Your task to perform on an android device: Open Yahoo.com Image 0: 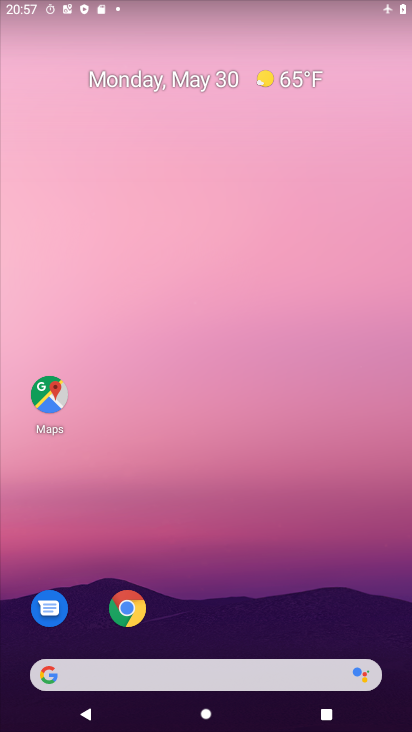
Step 0: click (140, 608)
Your task to perform on an android device: Open Yahoo.com Image 1: 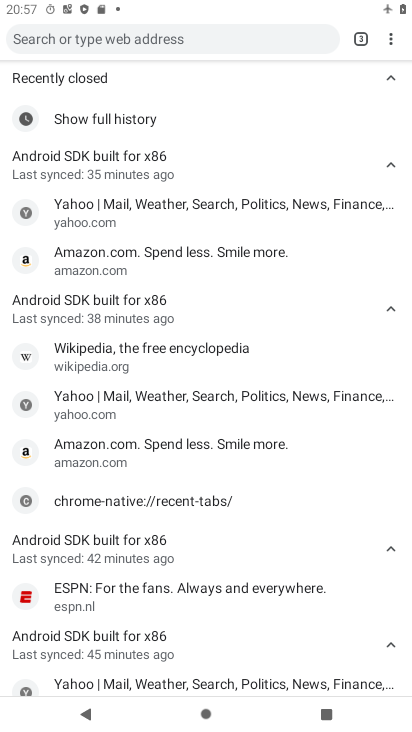
Step 1: click (363, 26)
Your task to perform on an android device: Open Yahoo.com Image 2: 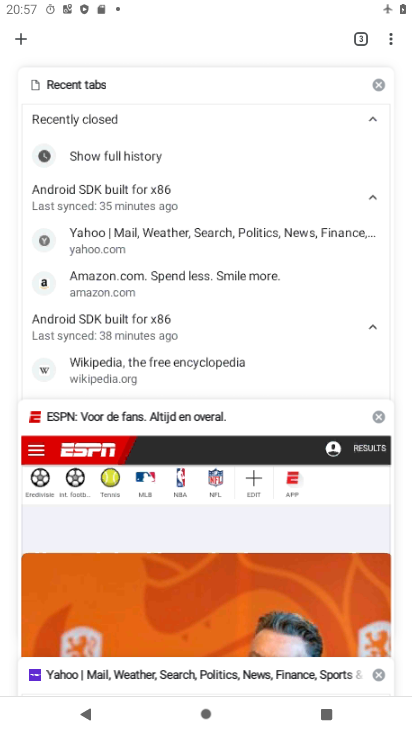
Step 2: click (23, 36)
Your task to perform on an android device: Open Yahoo.com Image 3: 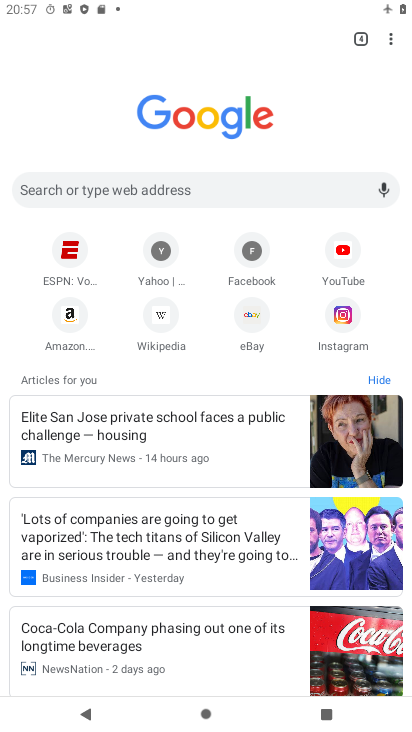
Step 3: click (207, 177)
Your task to perform on an android device: Open Yahoo.com Image 4: 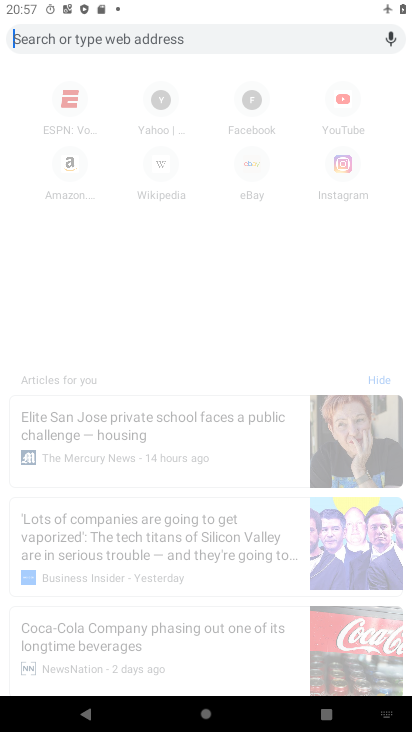
Step 4: type "Yahoo.com"
Your task to perform on an android device: Open Yahoo.com Image 5: 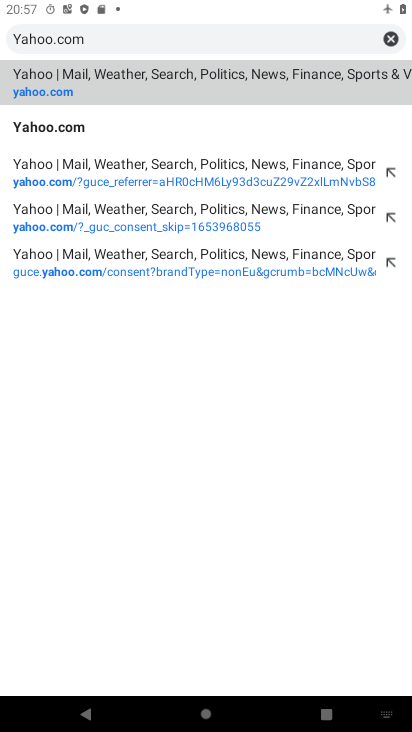
Step 5: click (97, 120)
Your task to perform on an android device: Open Yahoo.com Image 6: 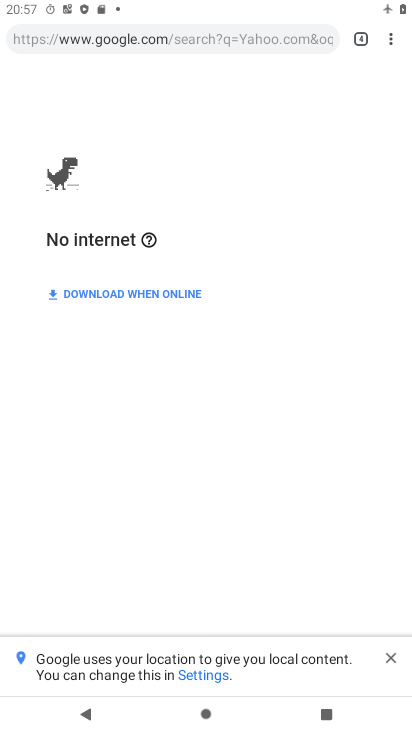
Step 6: task complete